Your task to perform on an android device: Open ESPN.com Image 0: 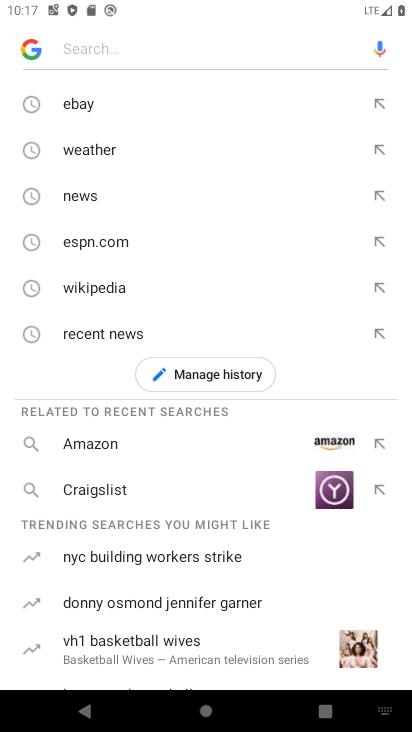
Step 0: press home button
Your task to perform on an android device: Open ESPN.com Image 1: 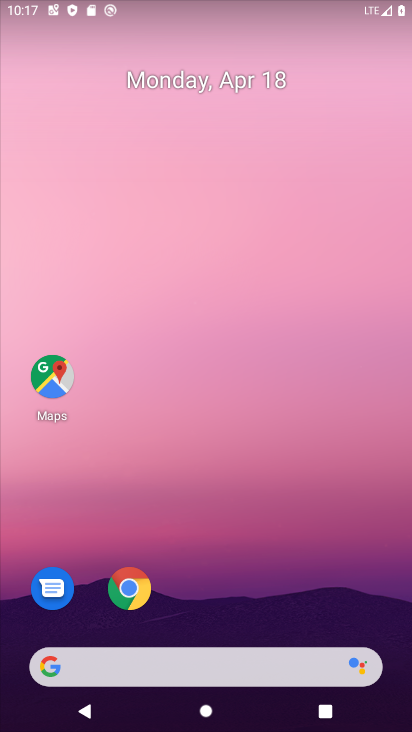
Step 1: click (126, 588)
Your task to perform on an android device: Open ESPN.com Image 2: 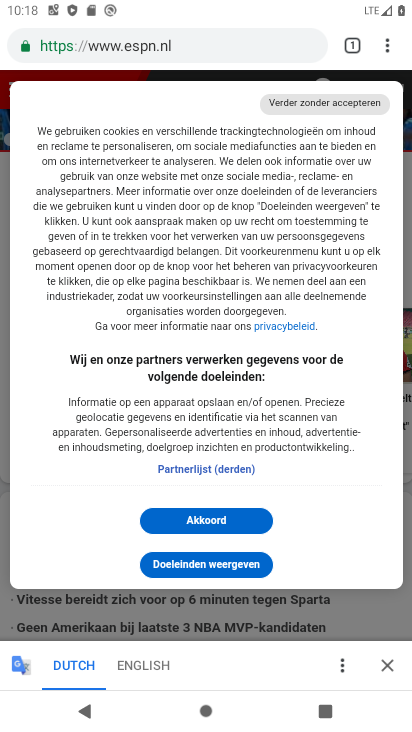
Step 2: task complete